Your task to perform on an android device: Go to battery settings Image 0: 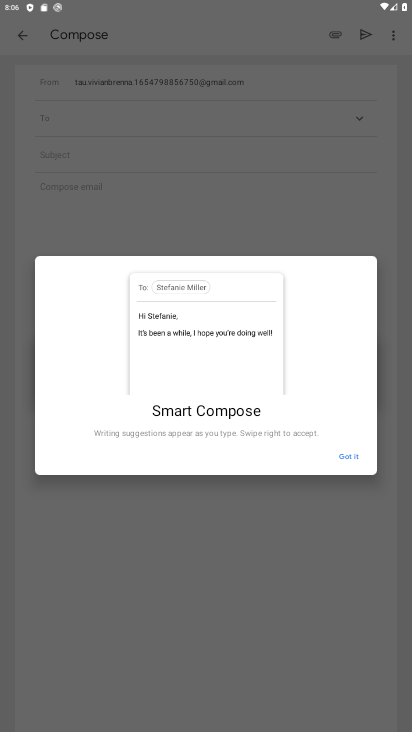
Step 0: press home button
Your task to perform on an android device: Go to battery settings Image 1: 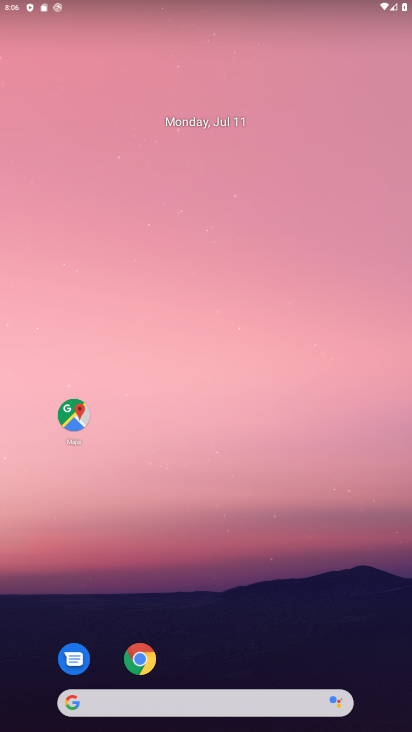
Step 1: drag from (16, 701) to (270, 65)
Your task to perform on an android device: Go to battery settings Image 2: 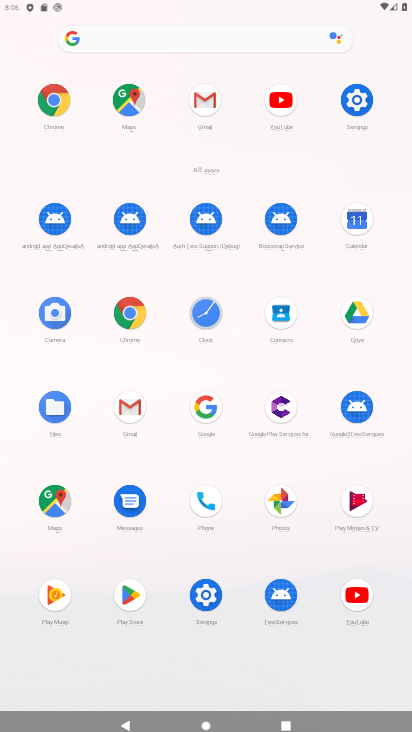
Step 2: click (212, 604)
Your task to perform on an android device: Go to battery settings Image 3: 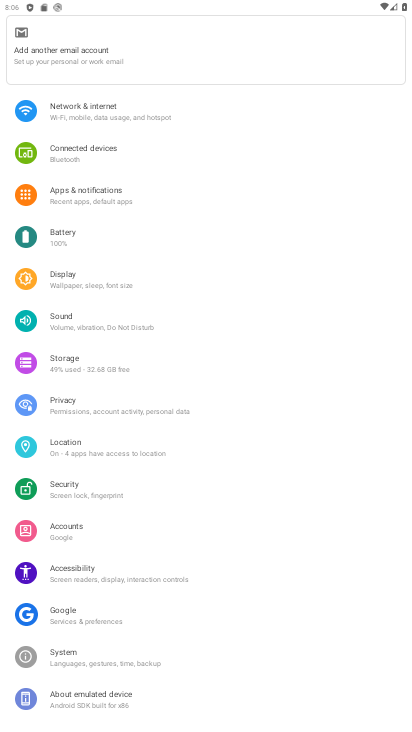
Step 3: click (94, 230)
Your task to perform on an android device: Go to battery settings Image 4: 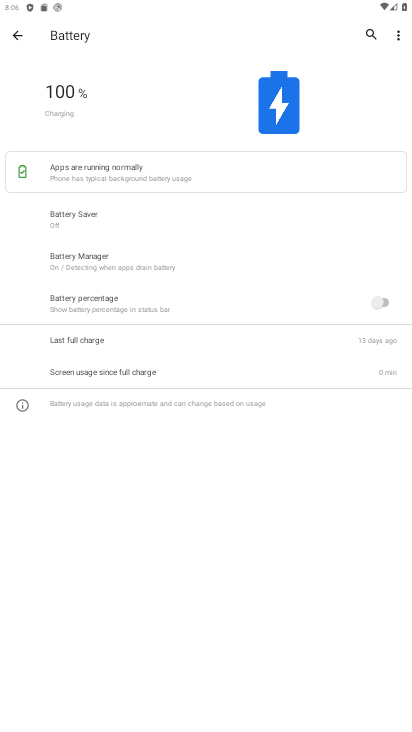
Step 4: task complete